Your task to perform on an android device: turn pop-ups off in chrome Image 0: 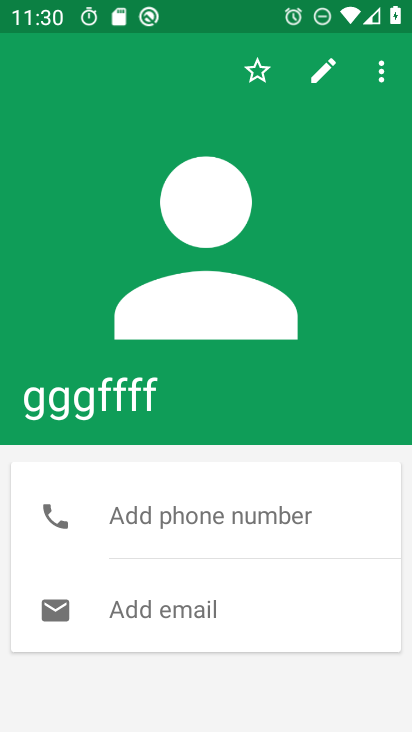
Step 0: press home button
Your task to perform on an android device: turn pop-ups off in chrome Image 1: 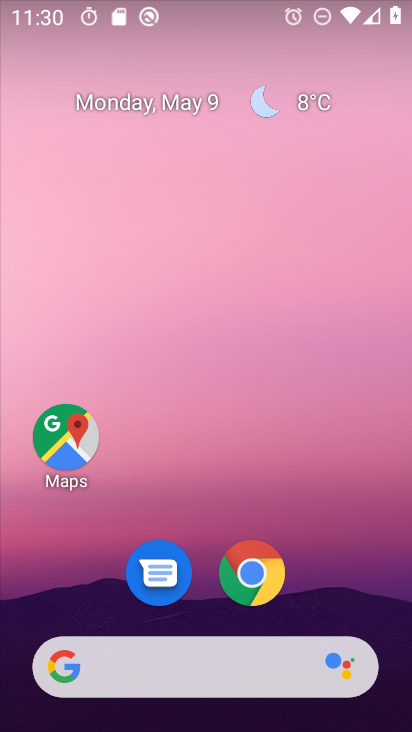
Step 1: click (245, 570)
Your task to perform on an android device: turn pop-ups off in chrome Image 2: 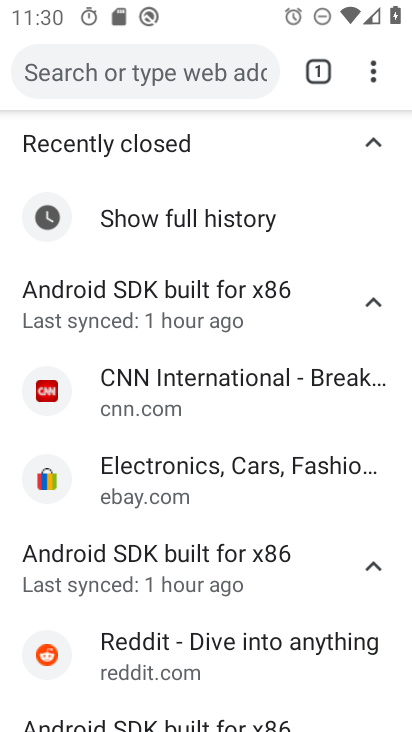
Step 2: drag from (376, 70) to (201, 600)
Your task to perform on an android device: turn pop-ups off in chrome Image 3: 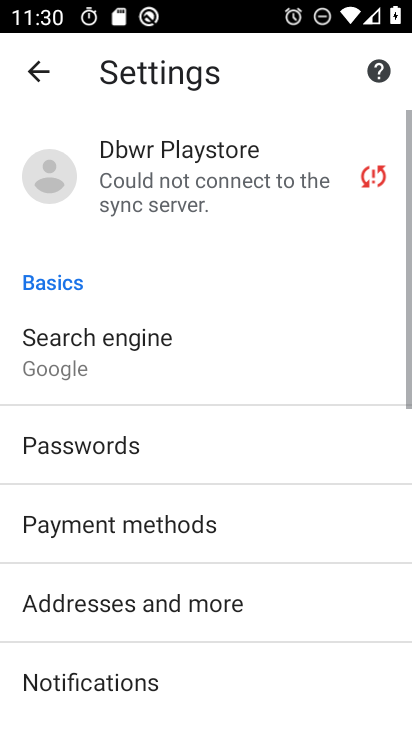
Step 3: drag from (188, 585) to (257, 141)
Your task to perform on an android device: turn pop-ups off in chrome Image 4: 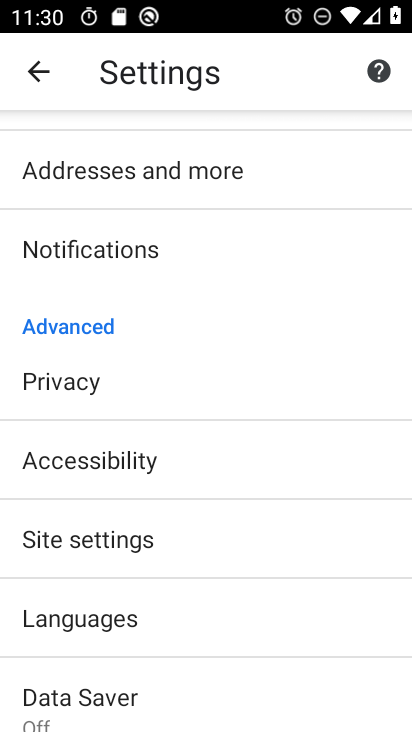
Step 4: click (102, 538)
Your task to perform on an android device: turn pop-ups off in chrome Image 5: 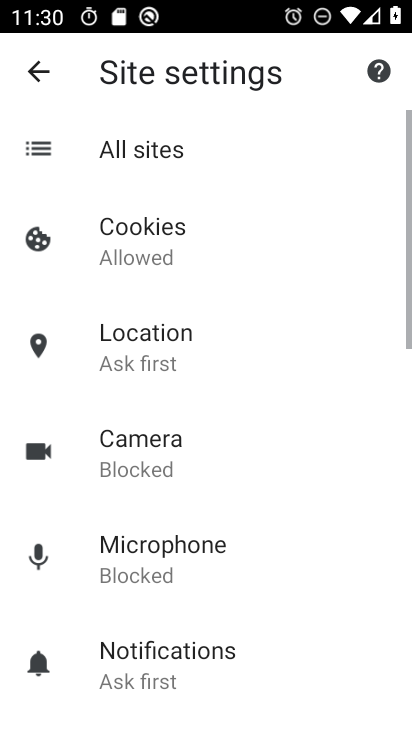
Step 5: drag from (289, 613) to (342, 221)
Your task to perform on an android device: turn pop-ups off in chrome Image 6: 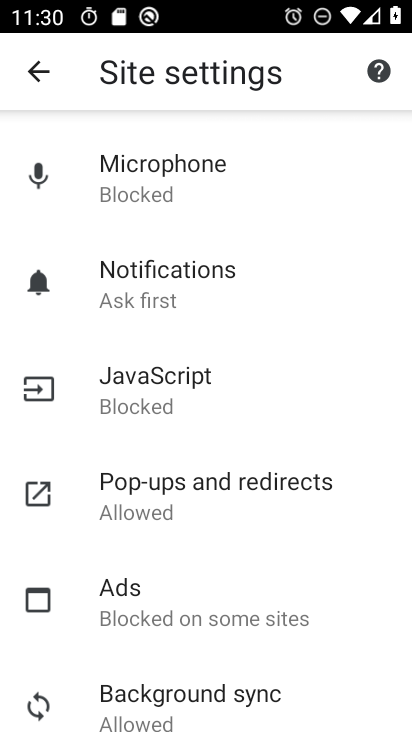
Step 6: click (153, 497)
Your task to perform on an android device: turn pop-ups off in chrome Image 7: 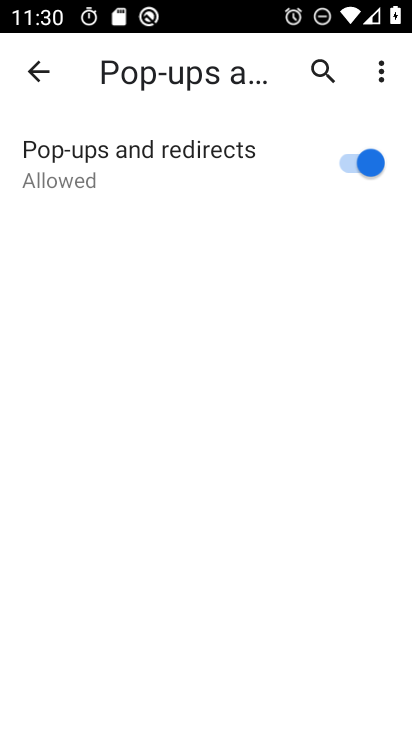
Step 7: click (373, 156)
Your task to perform on an android device: turn pop-ups off in chrome Image 8: 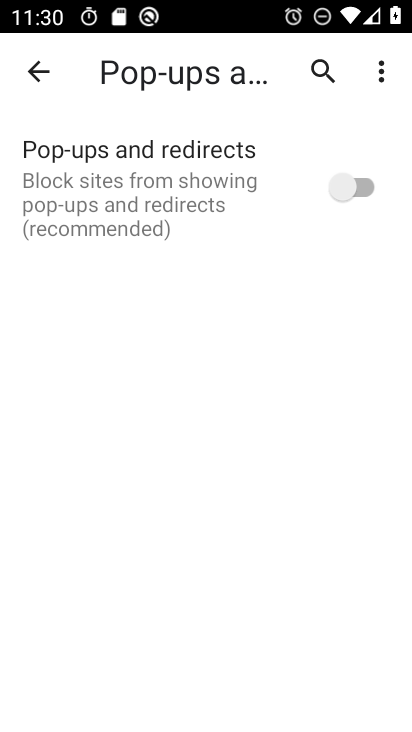
Step 8: task complete